Your task to perform on an android device: Go to Maps Image 0: 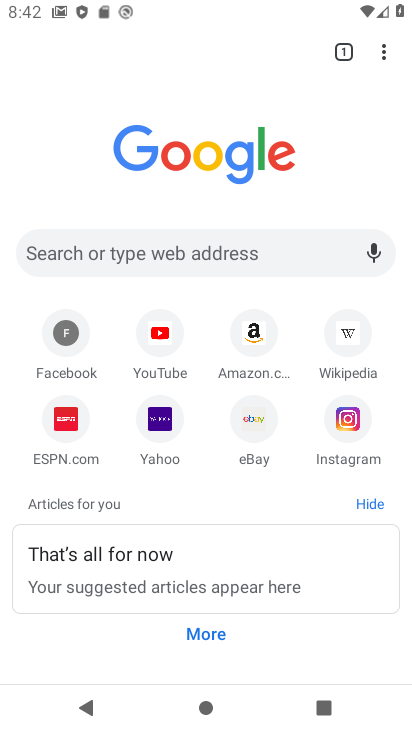
Step 0: press home button
Your task to perform on an android device: Go to Maps Image 1: 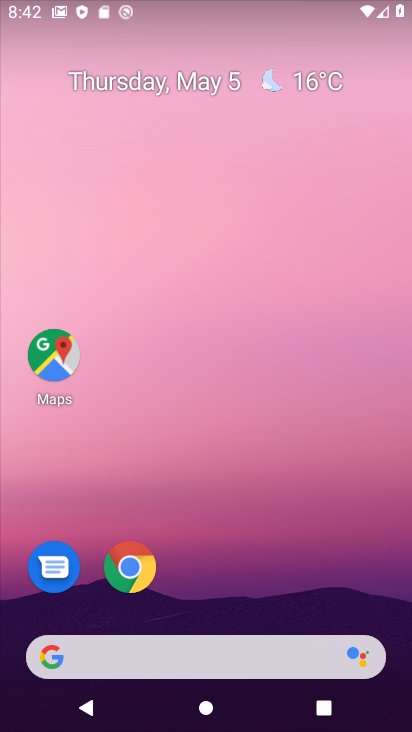
Step 1: click (52, 346)
Your task to perform on an android device: Go to Maps Image 2: 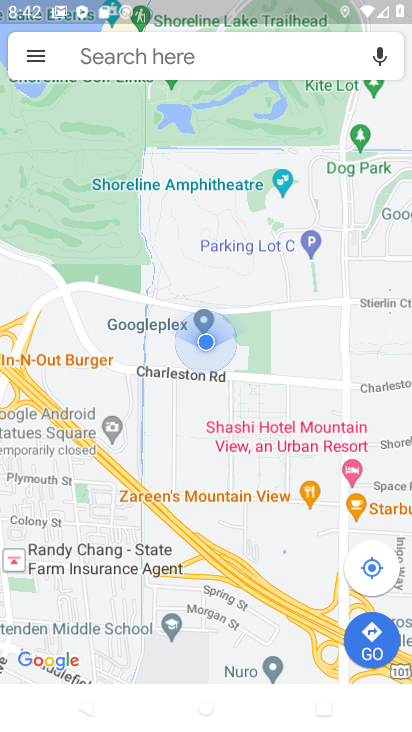
Step 2: task complete